Your task to perform on an android device: uninstall "Skype" Image 0: 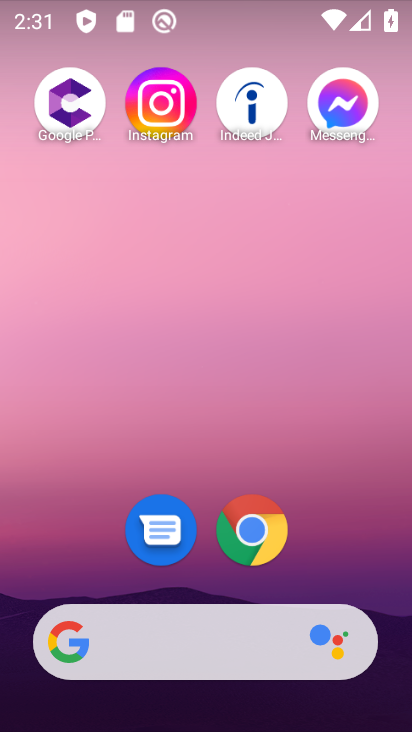
Step 0: drag from (210, 582) to (164, 0)
Your task to perform on an android device: uninstall "Skype" Image 1: 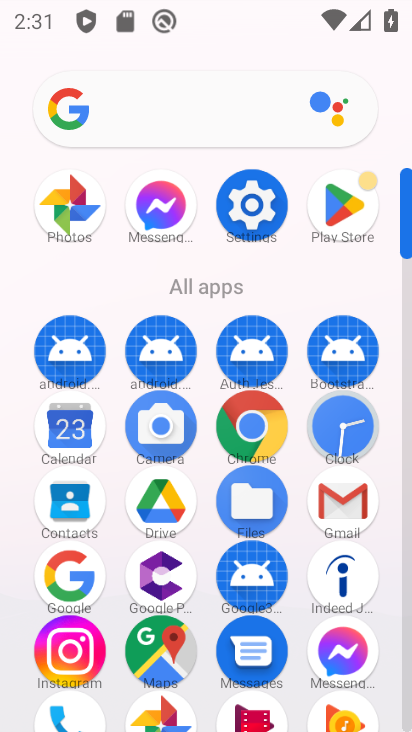
Step 1: click (342, 193)
Your task to perform on an android device: uninstall "Skype" Image 2: 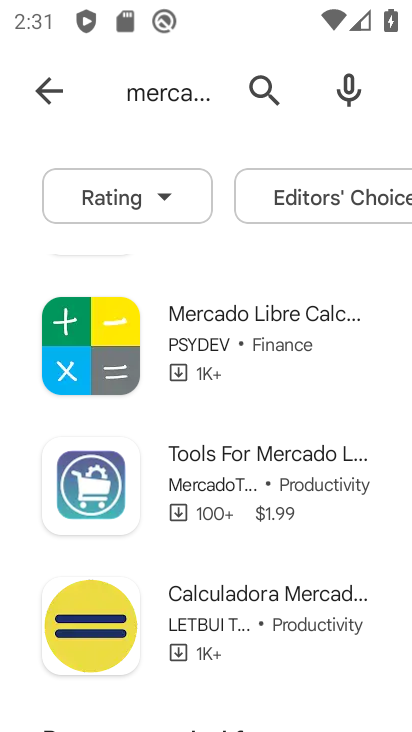
Step 2: click (170, 95)
Your task to perform on an android device: uninstall "Skype" Image 3: 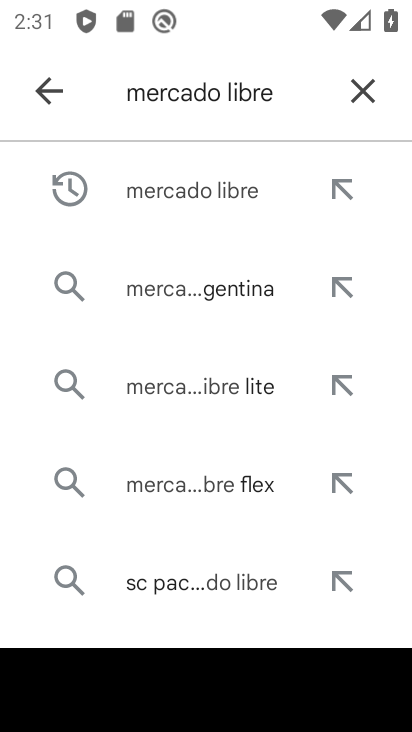
Step 3: click (364, 86)
Your task to perform on an android device: uninstall "Skype" Image 4: 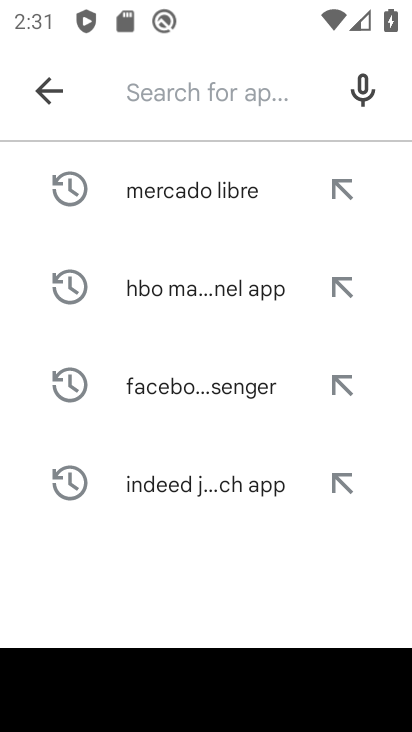
Step 4: type "skype"
Your task to perform on an android device: uninstall "Skype" Image 5: 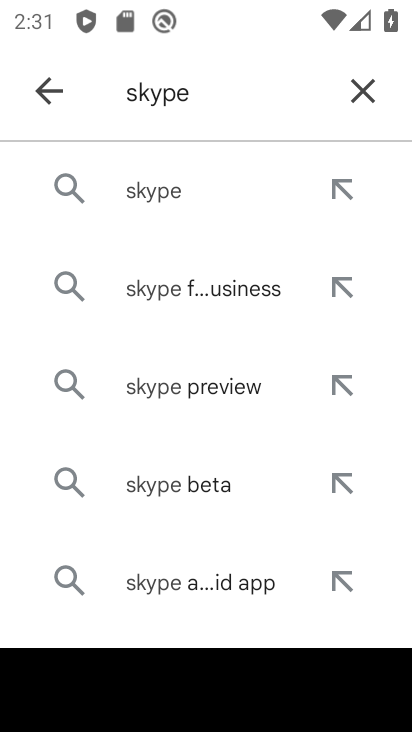
Step 5: click (144, 192)
Your task to perform on an android device: uninstall "Skype" Image 6: 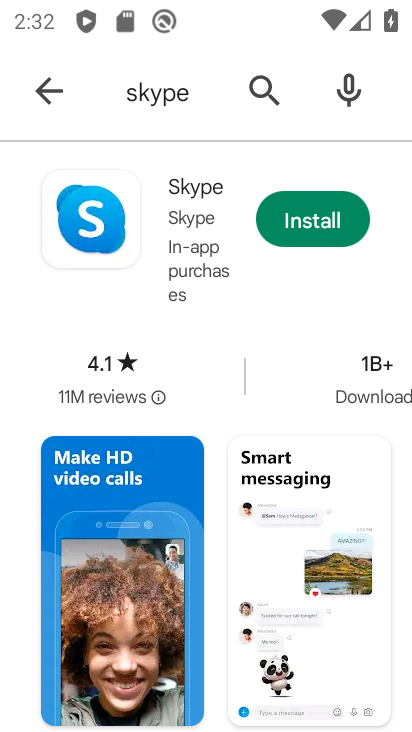
Step 6: task complete